Your task to perform on an android device: Open my contact list Image 0: 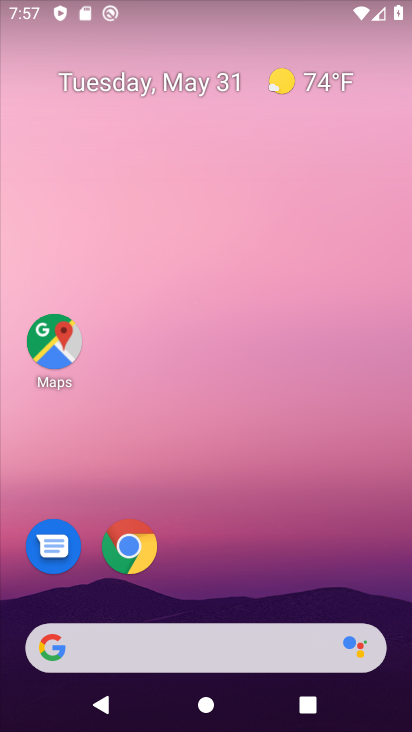
Step 0: drag from (224, 549) to (288, 145)
Your task to perform on an android device: Open my contact list Image 1: 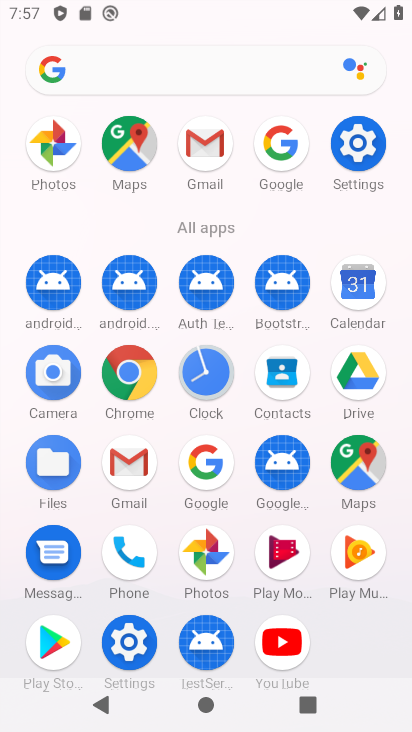
Step 1: click (281, 373)
Your task to perform on an android device: Open my contact list Image 2: 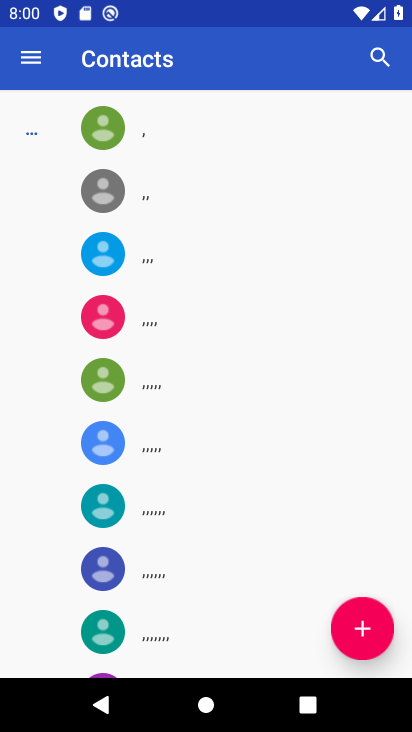
Step 2: task complete